Your task to perform on an android device: turn on bluetooth scan Image 0: 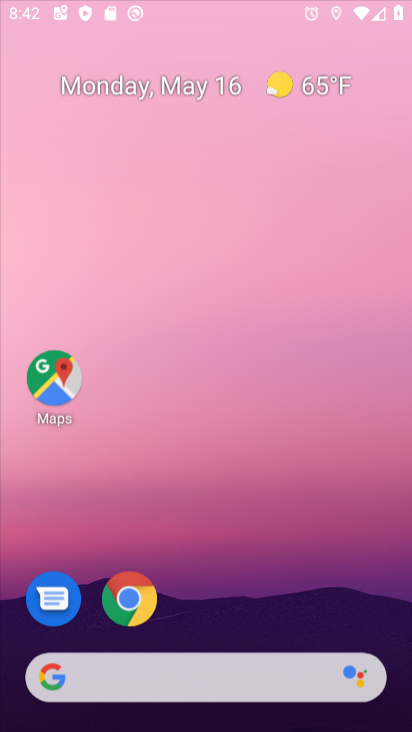
Step 0: drag from (205, 604) to (216, 140)
Your task to perform on an android device: turn on bluetooth scan Image 1: 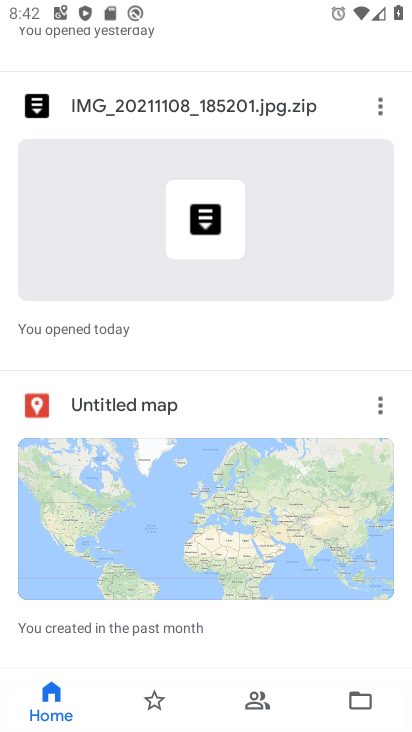
Step 1: drag from (215, 604) to (216, 188)
Your task to perform on an android device: turn on bluetooth scan Image 2: 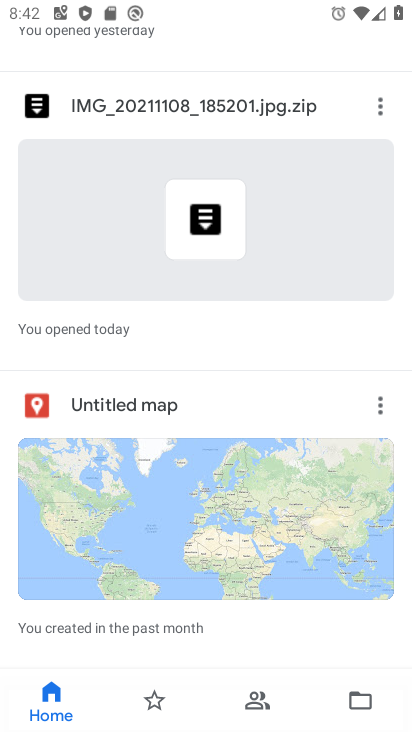
Step 2: drag from (233, 609) to (265, 200)
Your task to perform on an android device: turn on bluetooth scan Image 3: 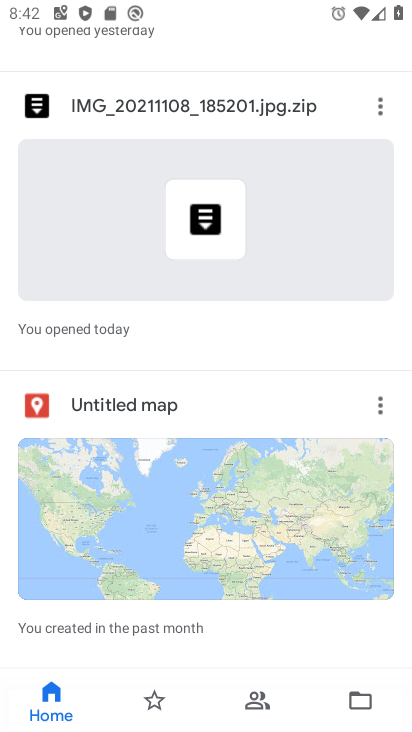
Step 3: drag from (255, 179) to (262, 716)
Your task to perform on an android device: turn on bluetooth scan Image 4: 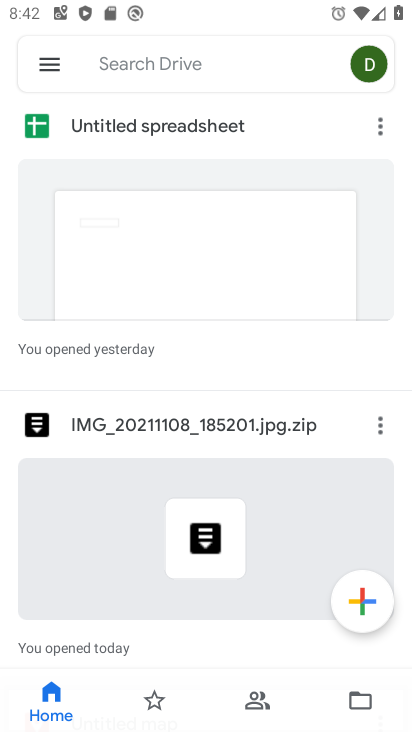
Step 4: click (164, 56)
Your task to perform on an android device: turn on bluetooth scan Image 5: 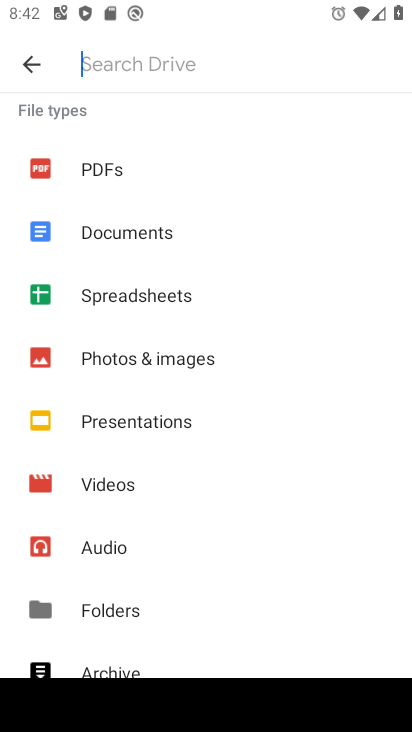
Step 5: press home button
Your task to perform on an android device: turn on bluetooth scan Image 6: 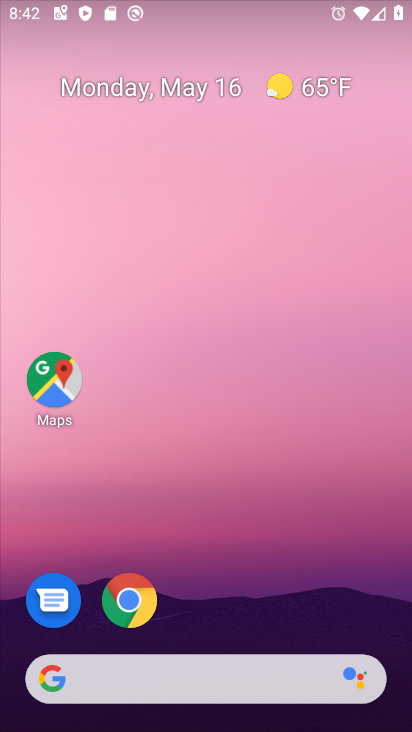
Step 6: drag from (194, 631) to (274, 6)
Your task to perform on an android device: turn on bluetooth scan Image 7: 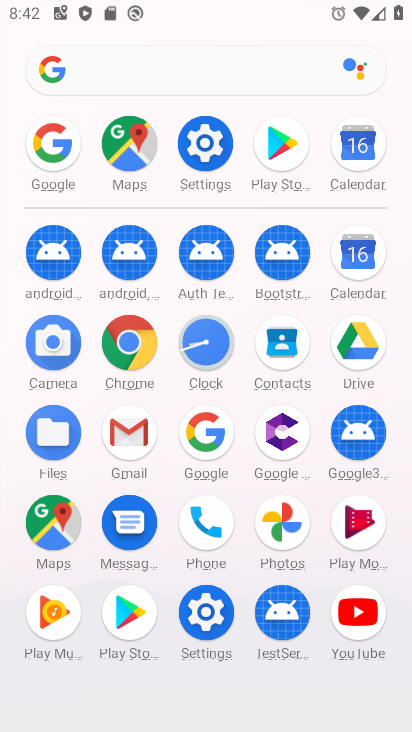
Step 7: click (209, 146)
Your task to perform on an android device: turn on bluetooth scan Image 8: 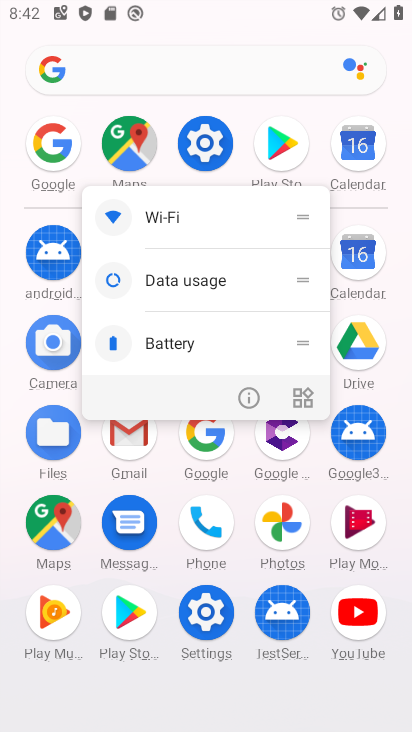
Step 8: click (257, 404)
Your task to perform on an android device: turn on bluetooth scan Image 9: 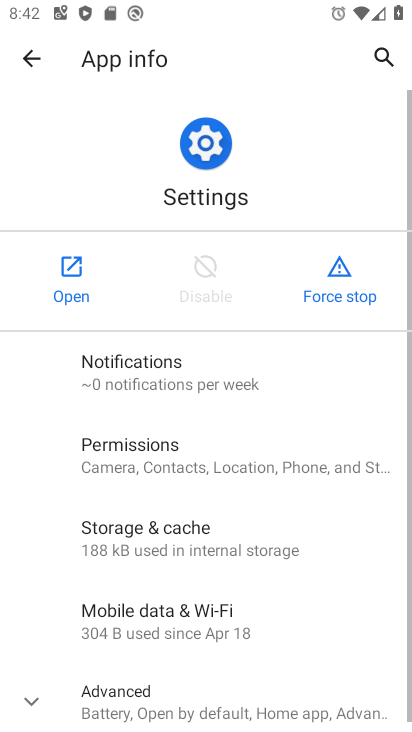
Step 9: click (84, 287)
Your task to perform on an android device: turn on bluetooth scan Image 10: 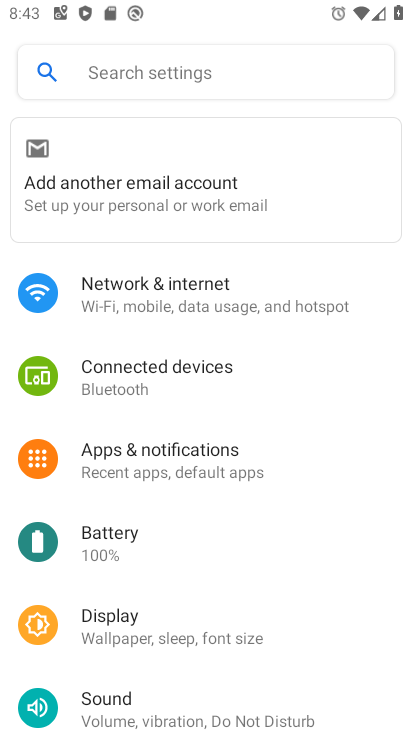
Step 10: drag from (214, 633) to (268, 241)
Your task to perform on an android device: turn on bluetooth scan Image 11: 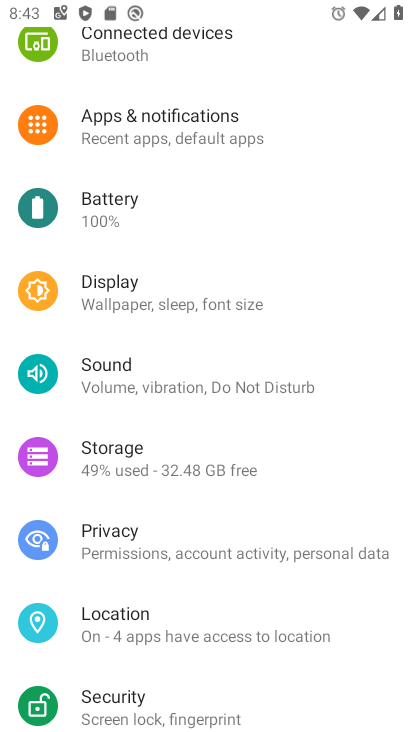
Step 11: drag from (228, 177) to (315, 724)
Your task to perform on an android device: turn on bluetooth scan Image 12: 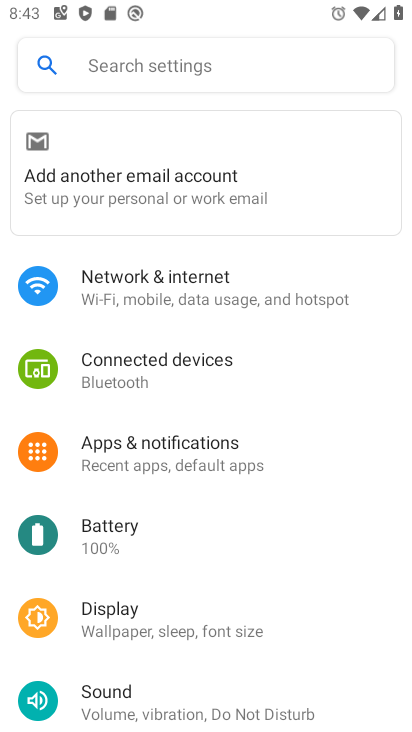
Step 12: click (161, 73)
Your task to perform on an android device: turn on bluetooth scan Image 13: 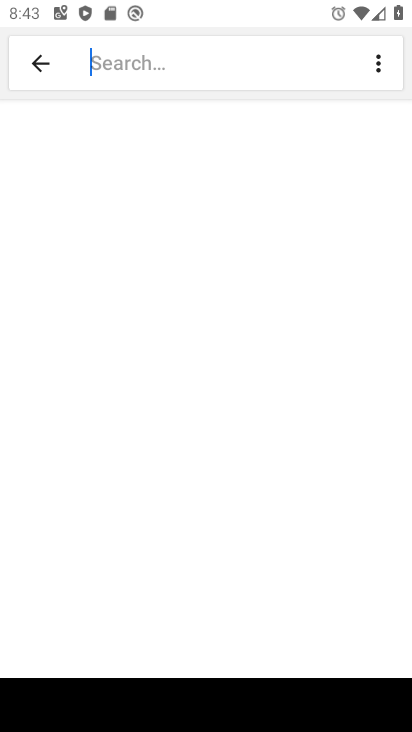
Step 13: type "bluetooth scan"
Your task to perform on an android device: turn on bluetooth scan Image 14: 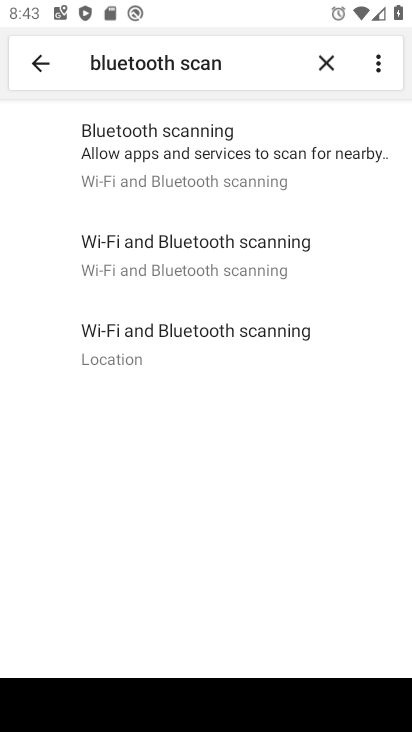
Step 14: click (165, 159)
Your task to perform on an android device: turn on bluetooth scan Image 15: 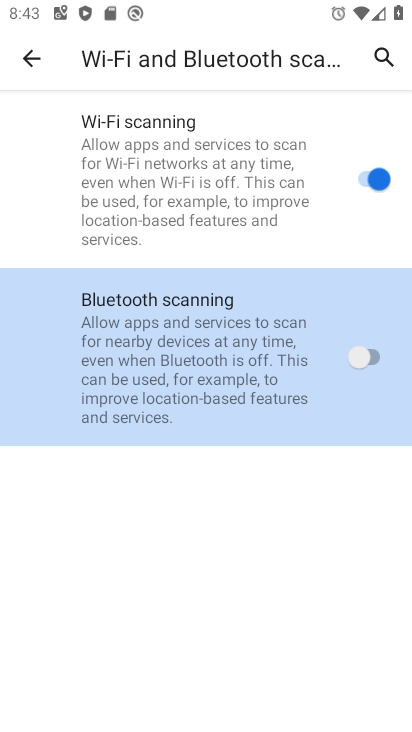
Step 15: click (321, 333)
Your task to perform on an android device: turn on bluetooth scan Image 16: 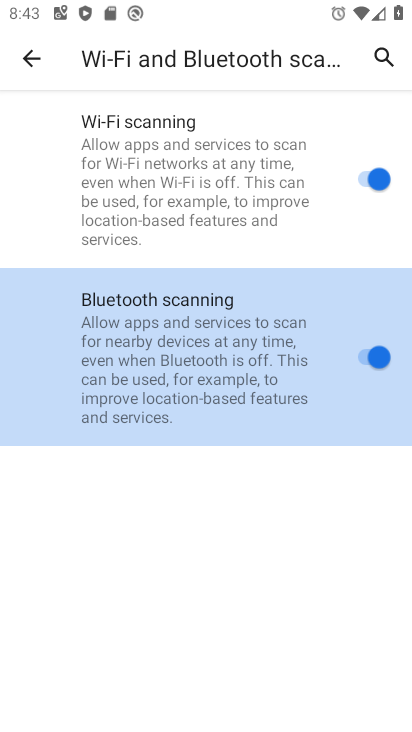
Step 16: task complete